Your task to perform on an android device: open sync settings in chrome Image 0: 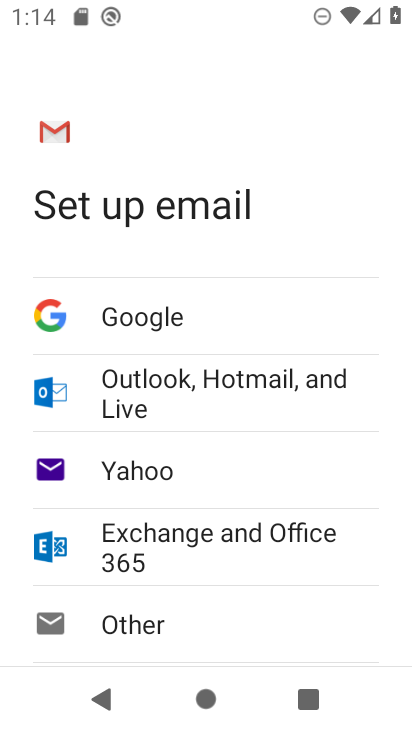
Step 0: press home button
Your task to perform on an android device: open sync settings in chrome Image 1: 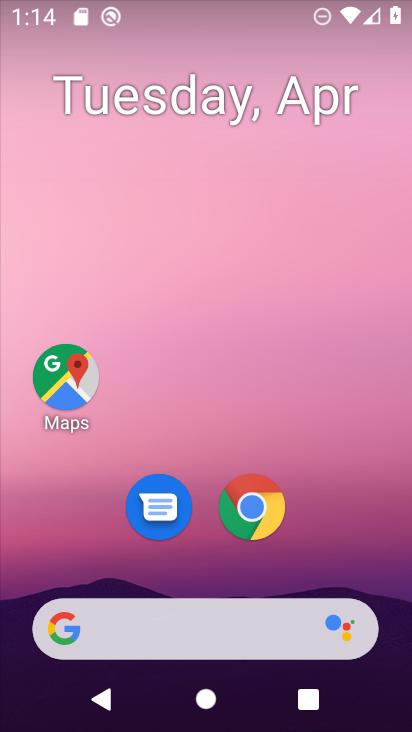
Step 1: drag from (335, 576) to (284, 54)
Your task to perform on an android device: open sync settings in chrome Image 2: 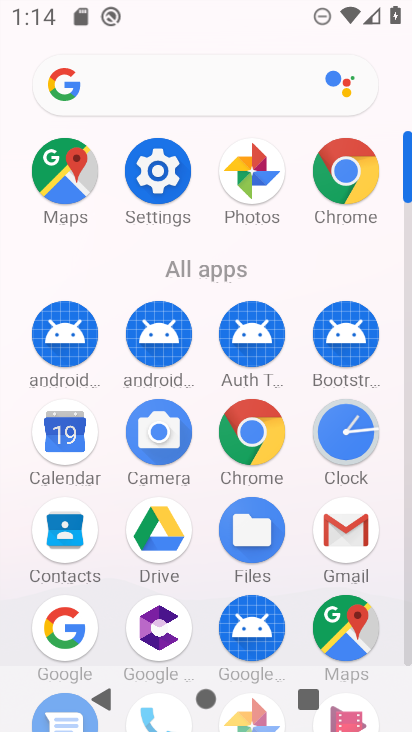
Step 2: click (361, 208)
Your task to perform on an android device: open sync settings in chrome Image 3: 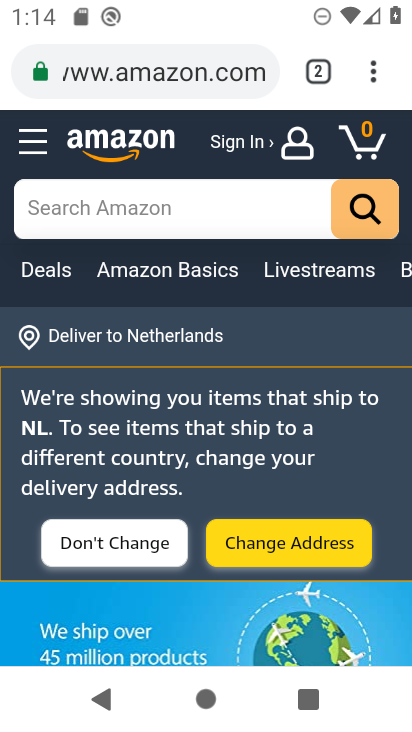
Step 3: click (375, 79)
Your task to perform on an android device: open sync settings in chrome Image 4: 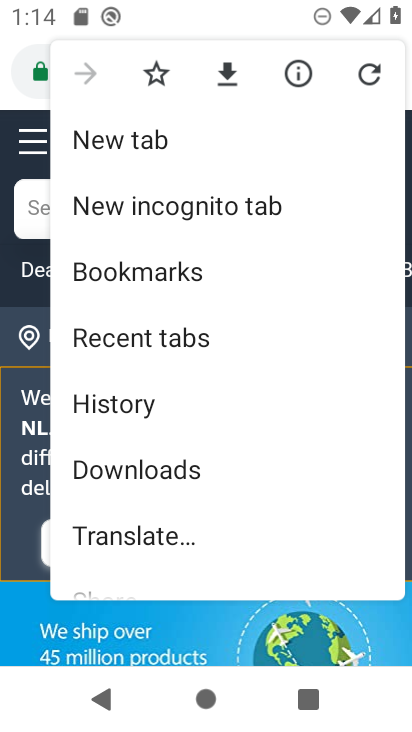
Step 4: drag from (211, 504) to (227, 121)
Your task to perform on an android device: open sync settings in chrome Image 5: 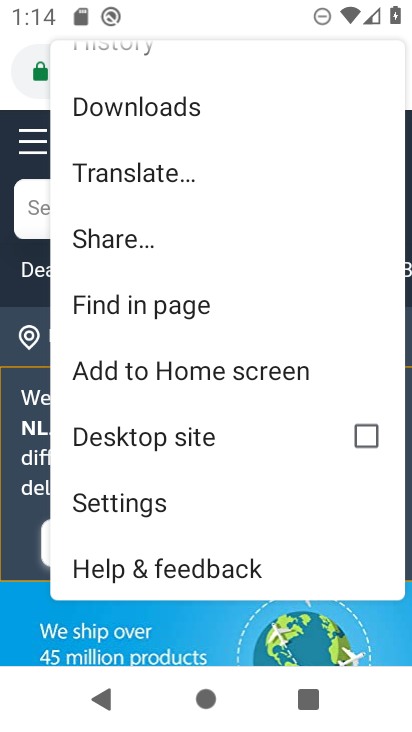
Step 5: click (214, 492)
Your task to perform on an android device: open sync settings in chrome Image 6: 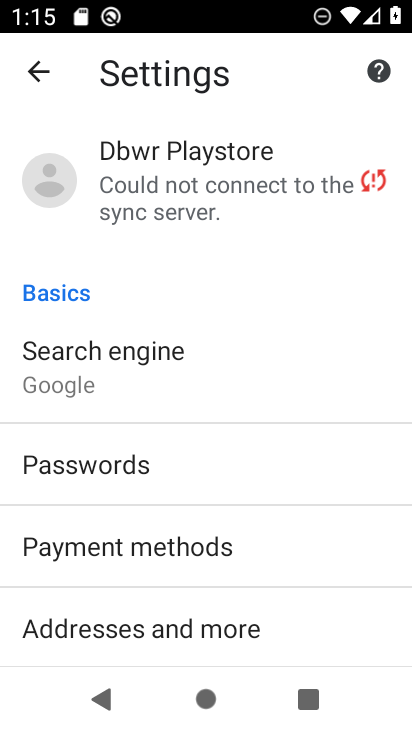
Step 6: click (220, 153)
Your task to perform on an android device: open sync settings in chrome Image 7: 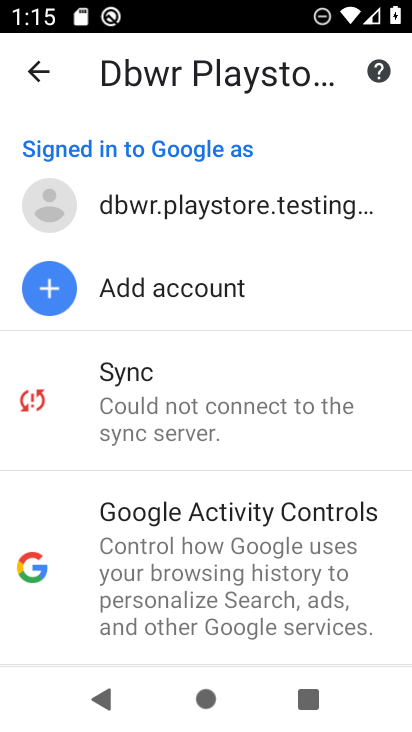
Step 7: click (225, 382)
Your task to perform on an android device: open sync settings in chrome Image 8: 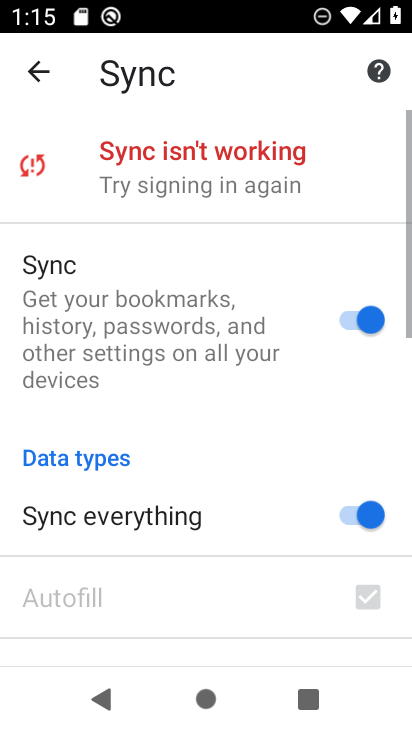
Step 8: task complete